Your task to perform on an android device: turn off smart reply in the gmail app Image 0: 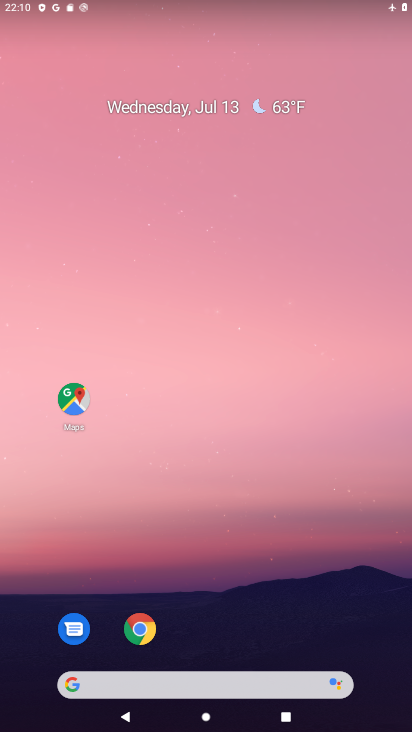
Step 0: drag from (276, 531) to (271, 246)
Your task to perform on an android device: turn off smart reply in the gmail app Image 1: 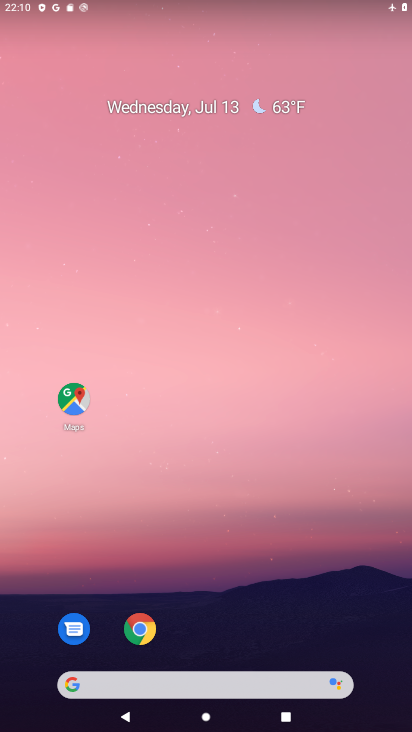
Step 1: drag from (243, 647) to (210, 17)
Your task to perform on an android device: turn off smart reply in the gmail app Image 2: 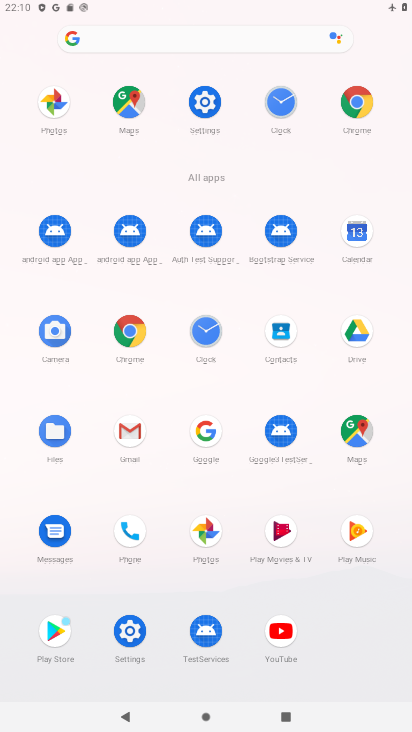
Step 2: drag from (276, 437) to (212, 28)
Your task to perform on an android device: turn off smart reply in the gmail app Image 3: 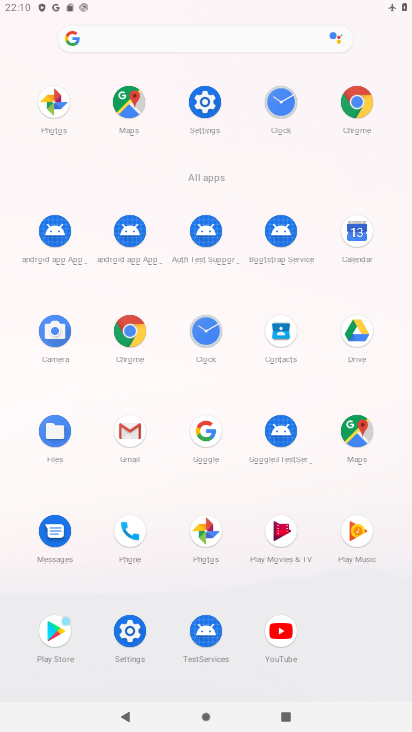
Step 3: click (133, 429)
Your task to perform on an android device: turn off smart reply in the gmail app Image 4: 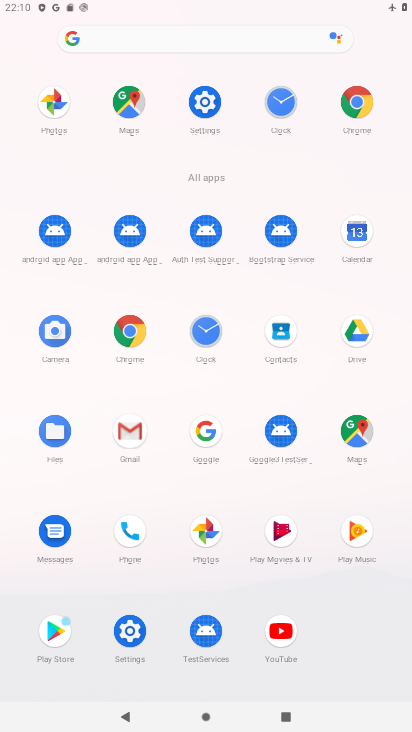
Step 4: click (133, 427)
Your task to perform on an android device: turn off smart reply in the gmail app Image 5: 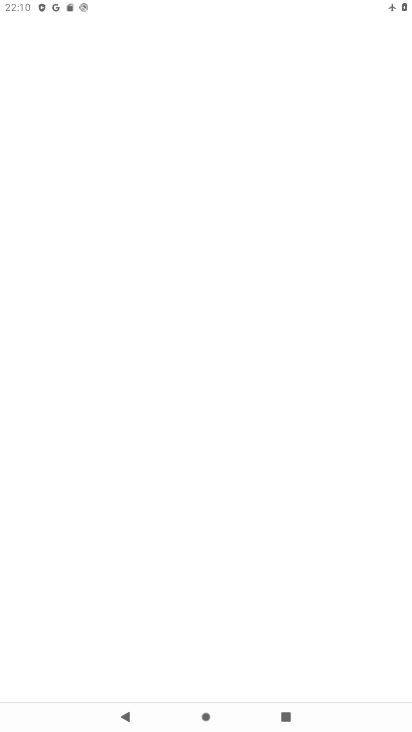
Step 5: click (135, 426)
Your task to perform on an android device: turn off smart reply in the gmail app Image 6: 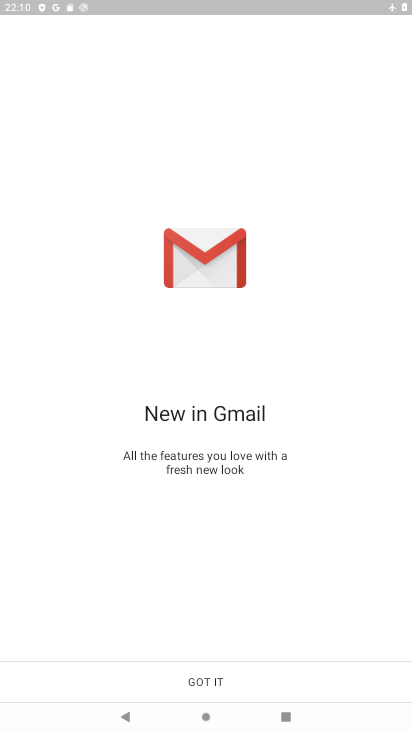
Step 6: click (208, 661)
Your task to perform on an android device: turn off smart reply in the gmail app Image 7: 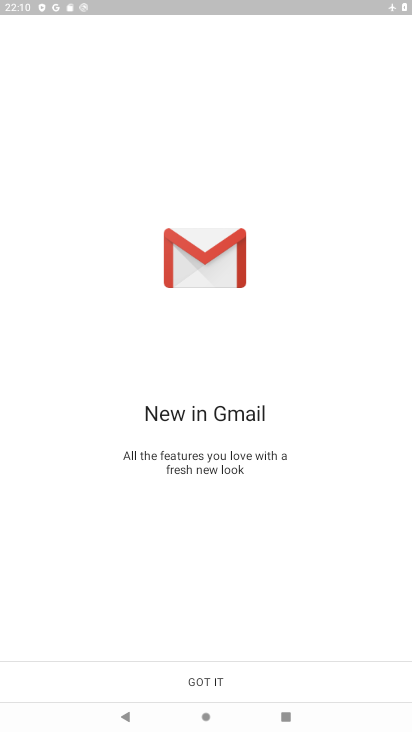
Step 7: click (211, 661)
Your task to perform on an android device: turn off smart reply in the gmail app Image 8: 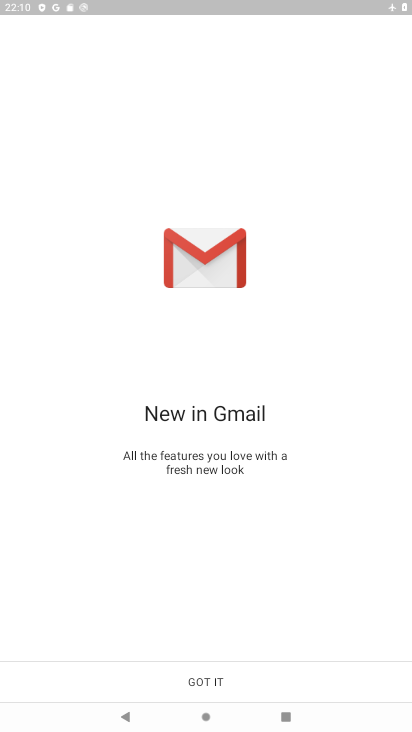
Step 8: click (226, 672)
Your task to perform on an android device: turn off smart reply in the gmail app Image 9: 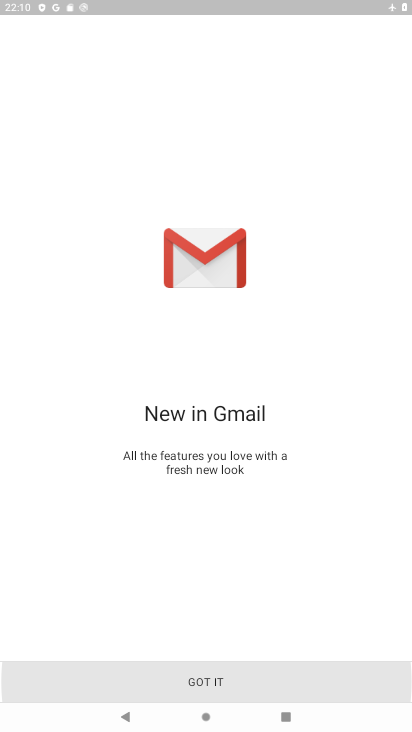
Step 9: click (227, 672)
Your task to perform on an android device: turn off smart reply in the gmail app Image 10: 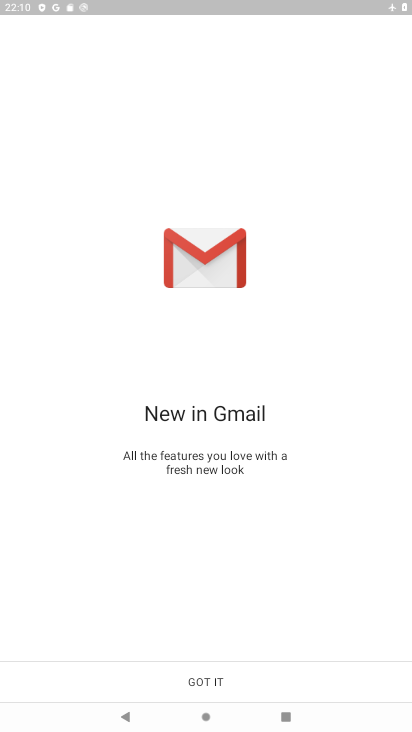
Step 10: click (228, 673)
Your task to perform on an android device: turn off smart reply in the gmail app Image 11: 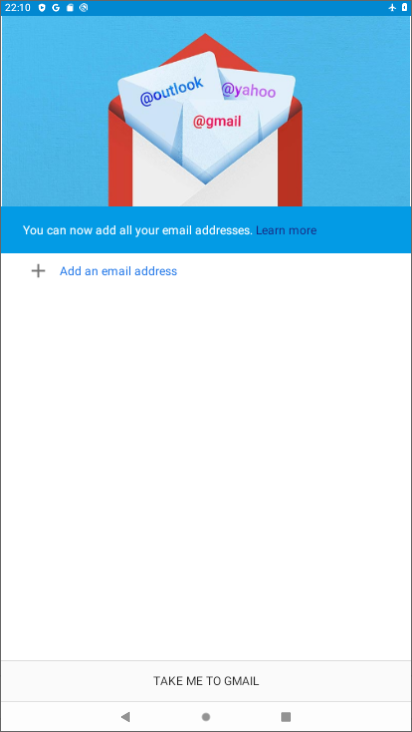
Step 11: click (230, 674)
Your task to perform on an android device: turn off smart reply in the gmail app Image 12: 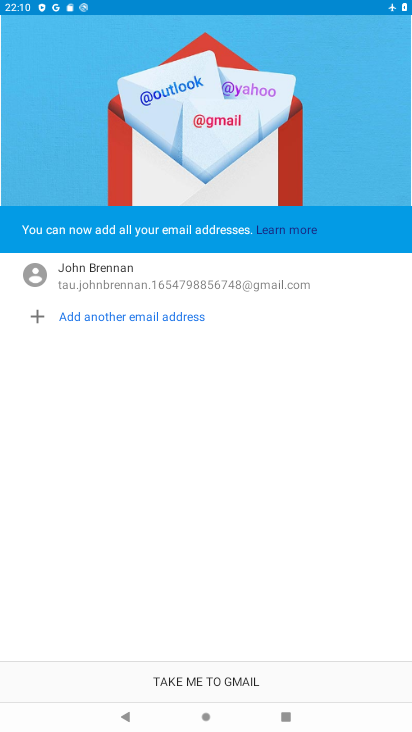
Step 12: click (231, 673)
Your task to perform on an android device: turn off smart reply in the gmail app Image 13: 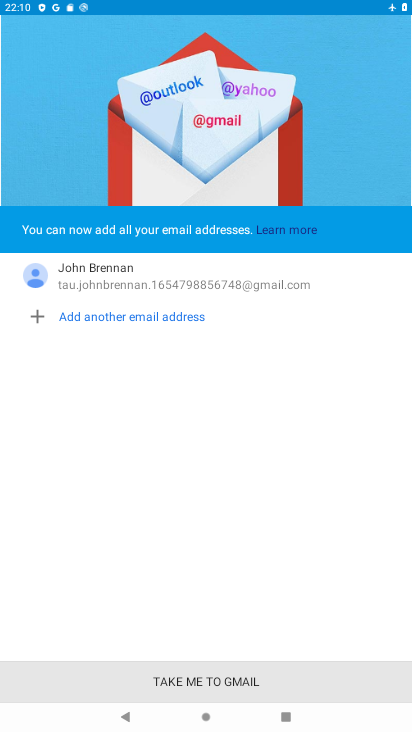
Step 13: click (231, 673)
Your task to perform on an android device: turn off smart reply in the gmail app Image 14: 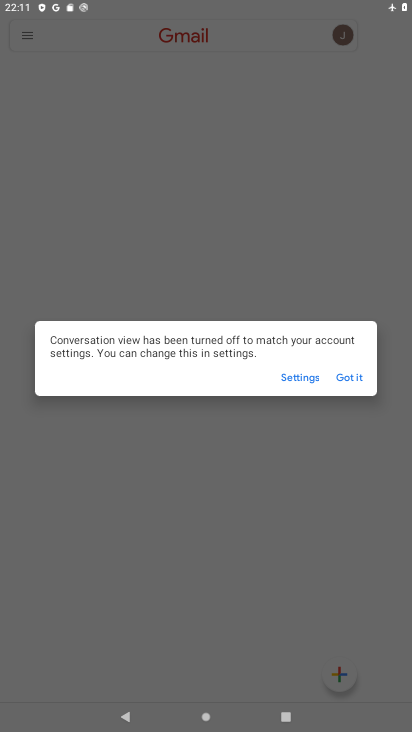
Step 14: click (354, 375)
Your task to perform on an android device: turn off smart reply in the gmail app Image 15: 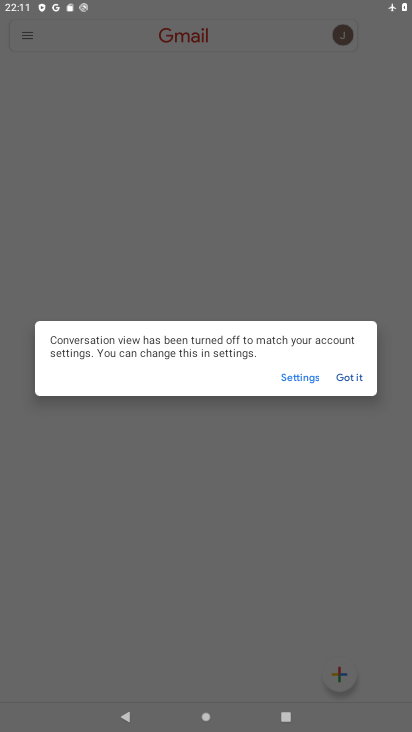
Step 15: click (354, 375)
Your task to perform on an android device: turn off smart reply in the gmail app Image 16: 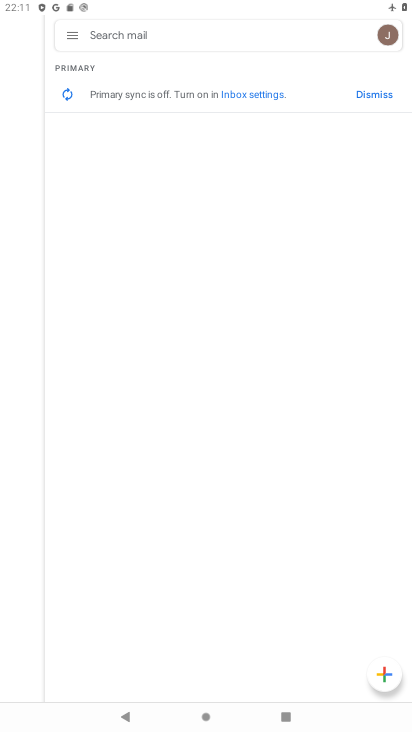
Step 16: click (72, 34)
Your task to perform on an android device: turn off smart reply in the gmail app Image 17: 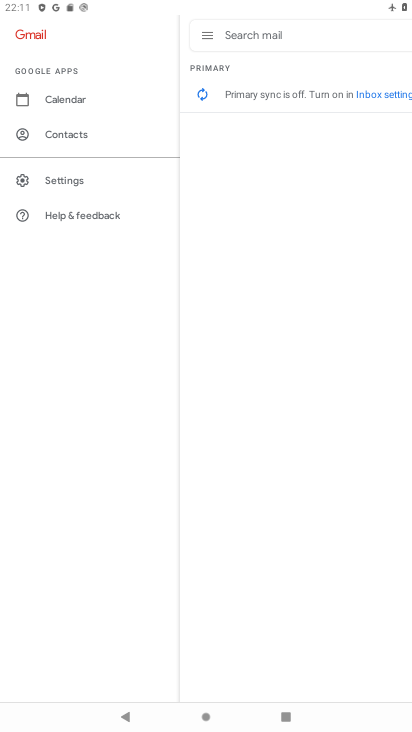
Step 17: click (74, 183)
Your task to perform on an android device: turn off smart reply in the gmail app Image 18: 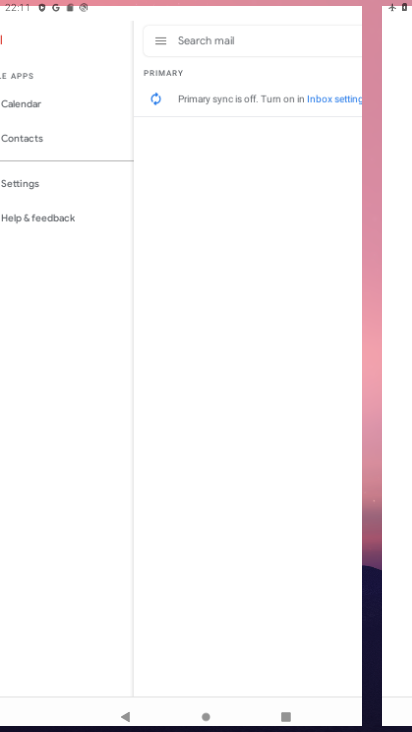
Step 18: click (71, 179)
Your task to perform on an android device: turn off smart reply in the gmail app Image 19: 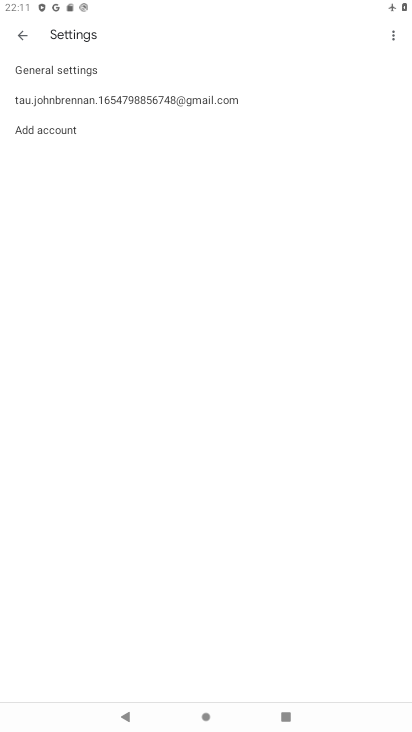
Step 19: click (71, 179)
Your task to perform on an android device: turn off smart reply in the gmail app Image 20: 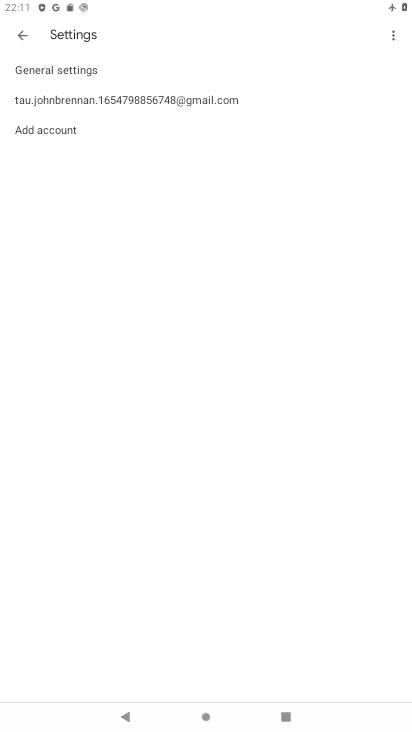
Step 20: click (70, 102)
Your task to perform on an android device: turn off smart reply in the gmail app Image 21: 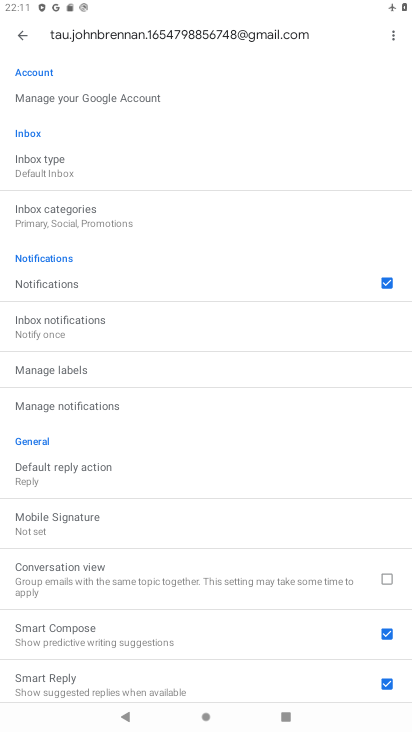
Step 21: click (92, 678)
Your task to perform on an android device: turn off smart reply in the gmail app Image 22: 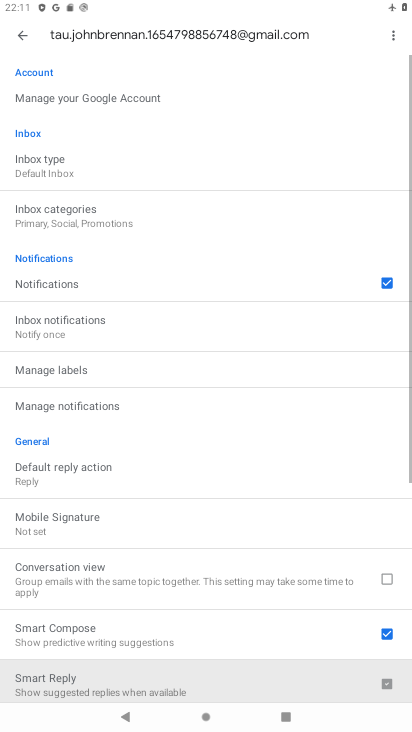
Step 22: click (97, 674)
Your task to perform on an android device: turn off smart reply in the gmail app Image 23: 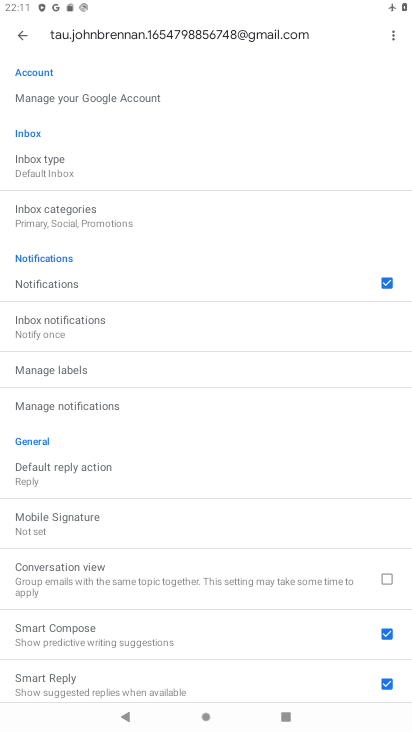
Step 23: click (388, 679)
Your task to perform on an android device: turn off smart reply in the gmail app Image 24: 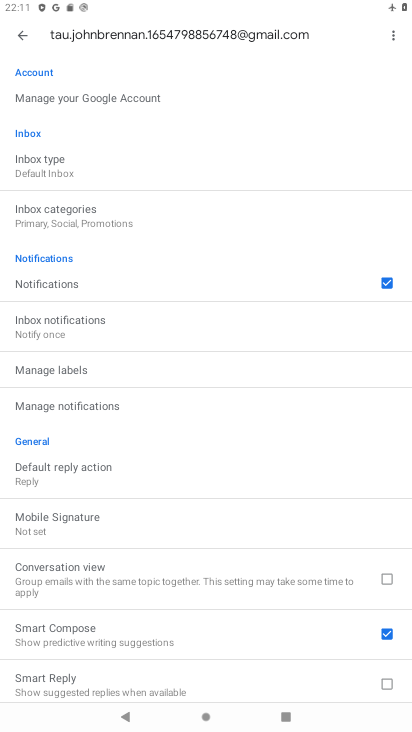
Step 24: task complete